Your task to perform on an android device: open a bookmark in the chrome app Image 0: 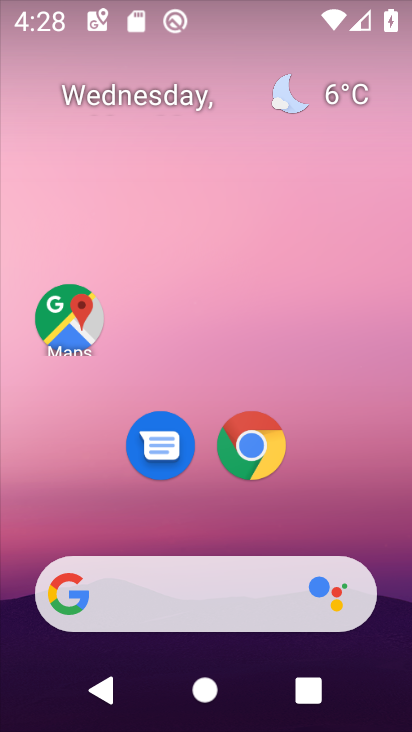
Step 0: click (270, 462)
Your task to perform on an android device: open a bookmark in the chrome app Image 1: 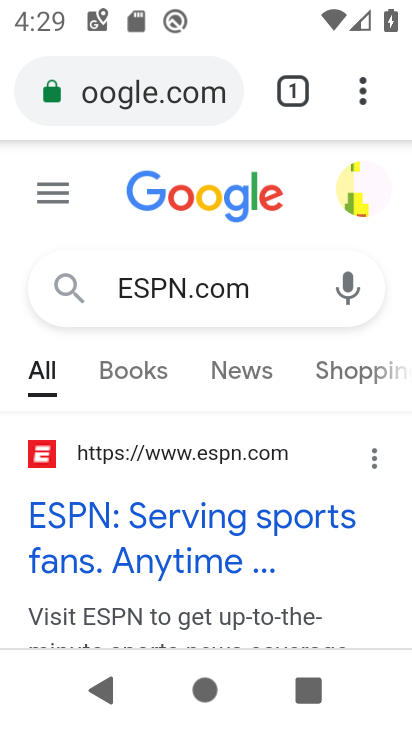
Step 1: click (362, 95)
Your task to perform on an android device: open a bookmark in the chrome app Image 2: 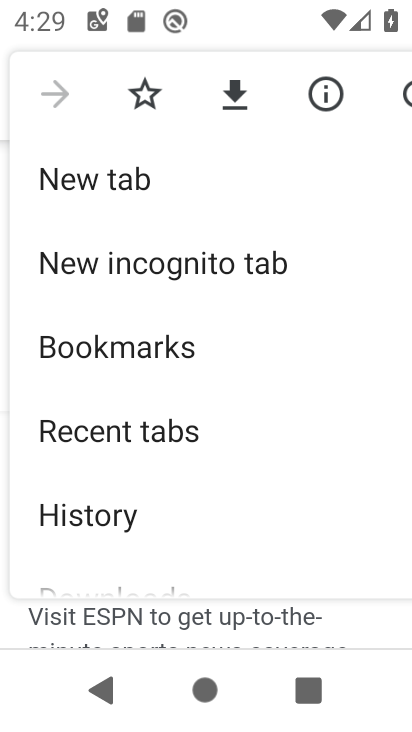
Step 2: click (144, 359)
Your task to perform on an android device: open a bookmark in the chrome app Image 3: 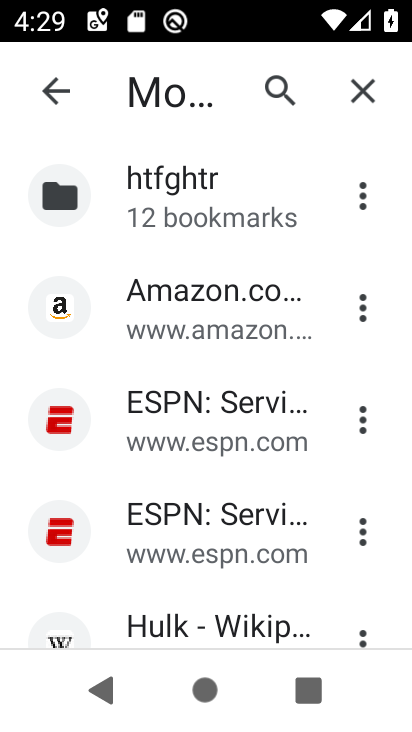
Step 3: click (222, 625)
Your task to perform on an android device: open a bookmark in the chrome app Image 4: 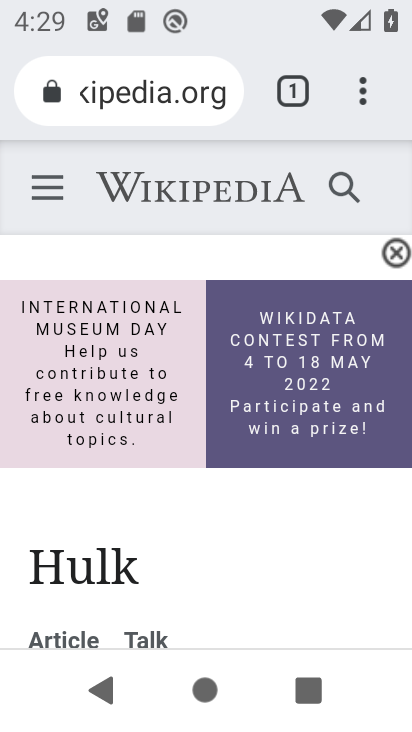
Step 4: task complete